Your task to perform on an android device: open a bookmark in the chrome app Image 0: 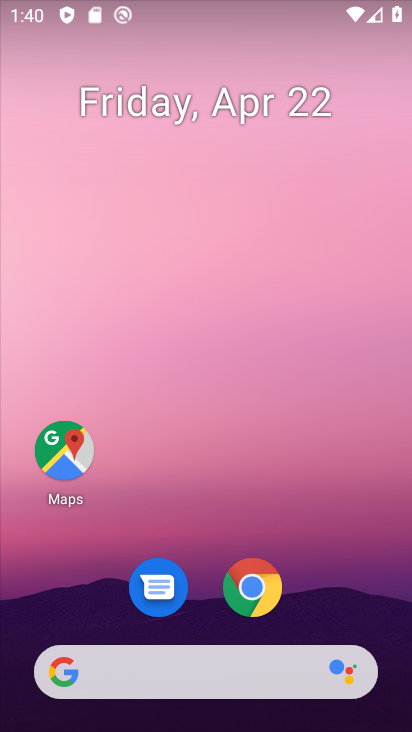
Step 0: click (283, 107)
Your task to perform on an android device: open a bookmark in the chrome app Image 1: 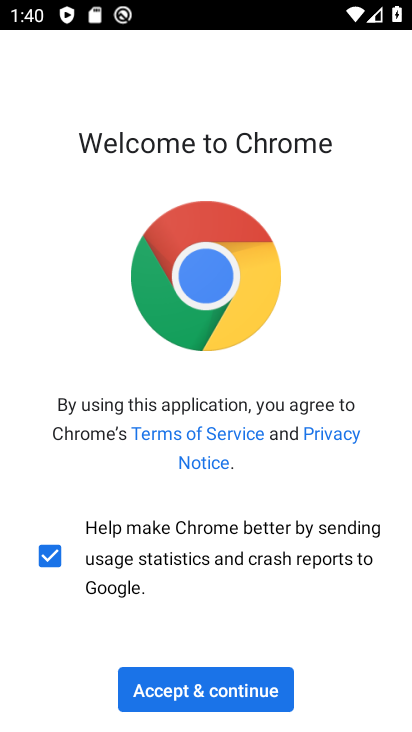
Step 1: drag from (191, 606) to (226, 329)
Your task to perform on an android device: open a bookmark in the chrome app Image 2: 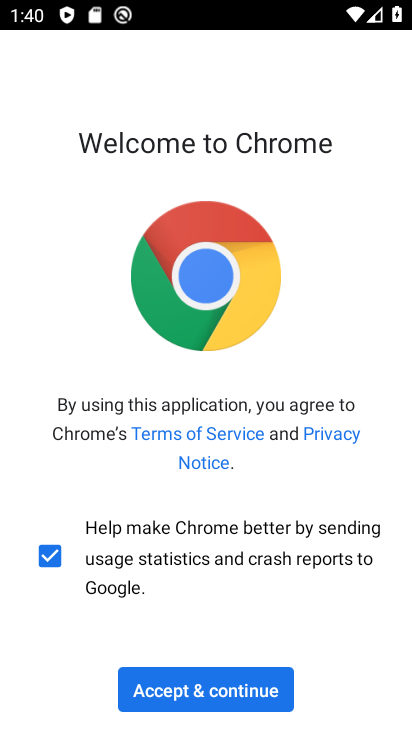
Step 2: press home button
Your task to perform on an android device: open a bookmark in the chrome app Image 3: 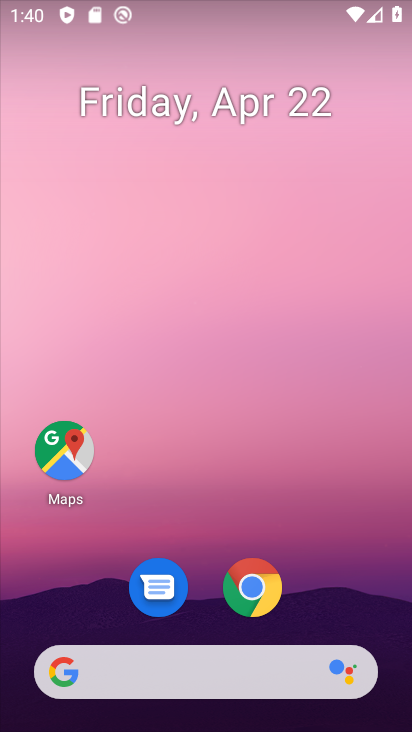
Step 3: drag from (195, 616) to (221, 219)
Your task to perform on an android device: open a bookmark in the chrome app Image 4: 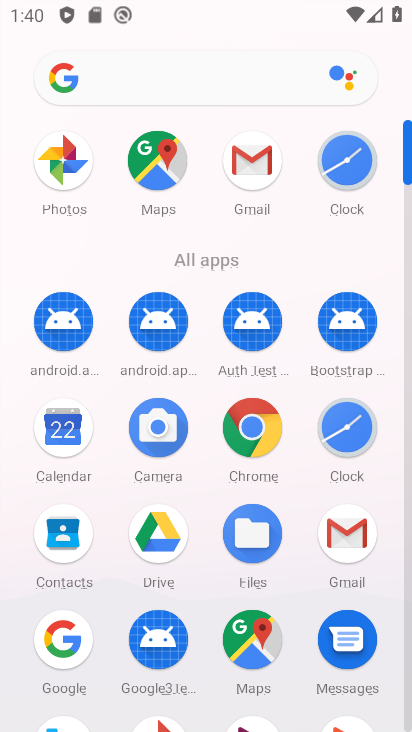
Step 4: click (244, 421)
Your task to perform on an android device: open a bookmark in the chrome app Image 5: 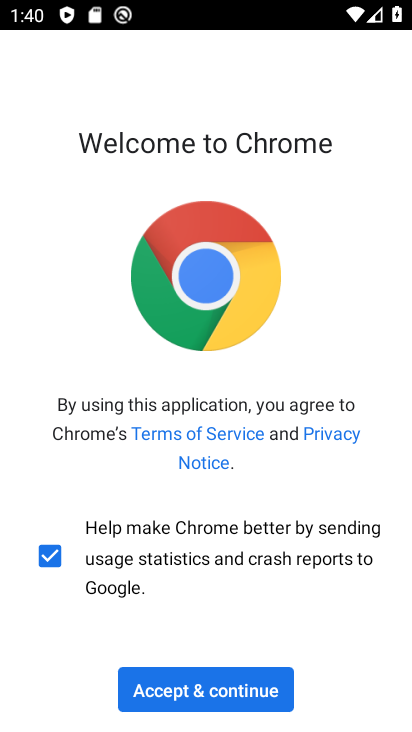
Step 5: click (177, 704)
Your task to perform on an android device: open a bookmark in the chrome app Image 6: 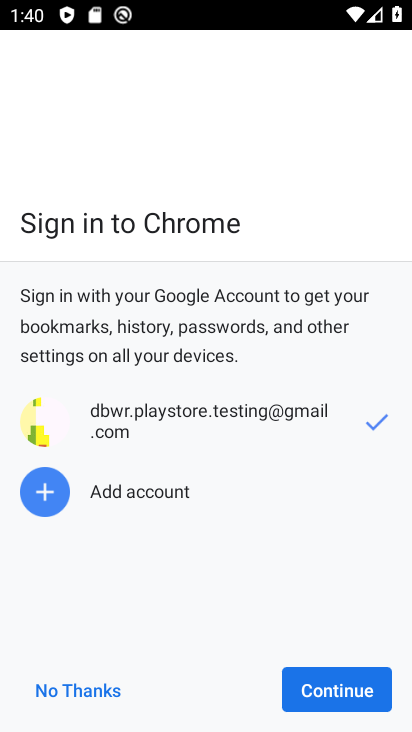
Step 6: click (336, 690)
Your task to perform on an android device: open a bookmark in the chrome app Image 7: 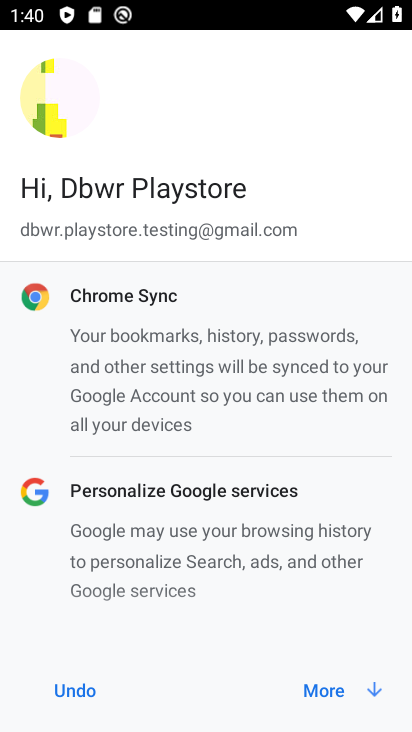
Step 7: click (355, 705)
Your task to perform on an android device: open a bookmark in the chrome app Image 8: 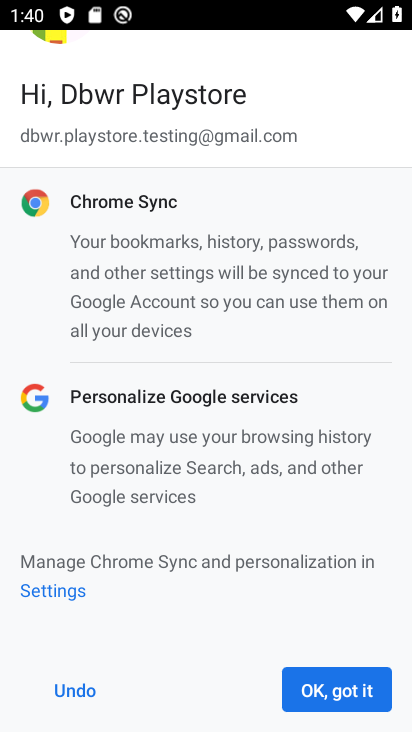
Step 8: click (319, 671)
Your task to perform on an android device: open a bookmark in the chrome app Image 9: 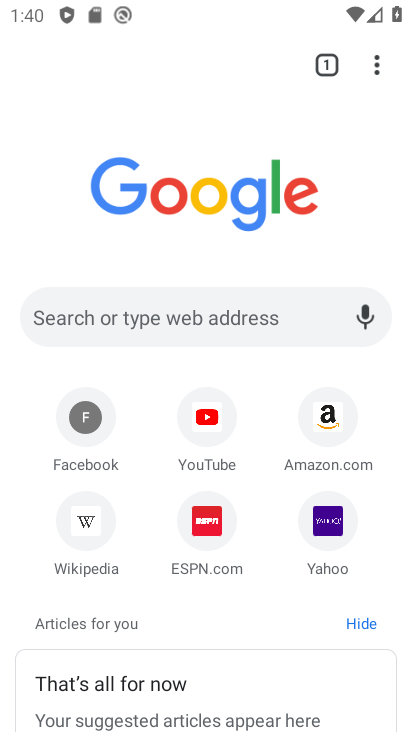
Step 9: task complete